Your task to perform on an android device: Is it going to rain tomorrow? Image 0: 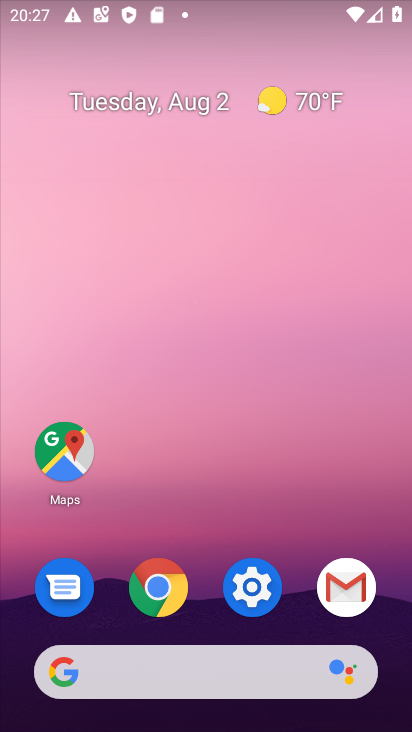
Step 0: click (213, 663)
Your task to perform on an android device: Is it going to rain tomorrow? Image 1: 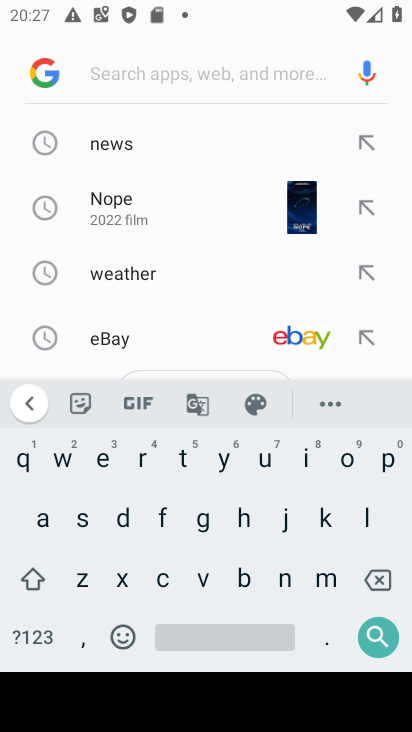
Step 1: click (305, 463)
Your task to perform on an android device: Is it going to rain tomorrow? Image 2: 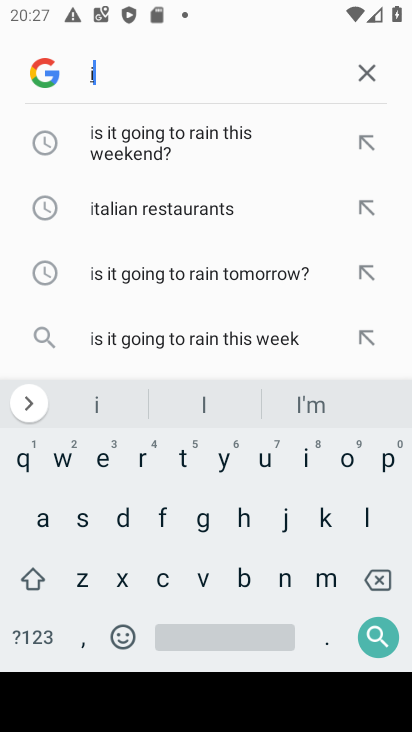
Step 2: click (129, 126)
Your task to perform on an android device: Is it going to rain tomorrow? Image 3: 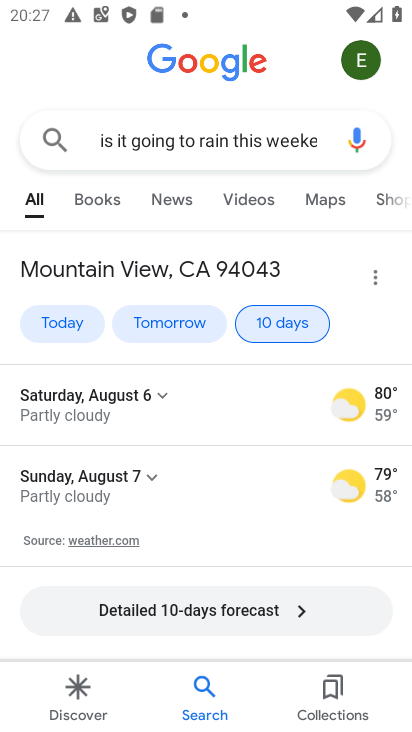
Step 3: click (146, 327)
Your task to perform on an android device: Is it going to rain tomorrow? Image 4: 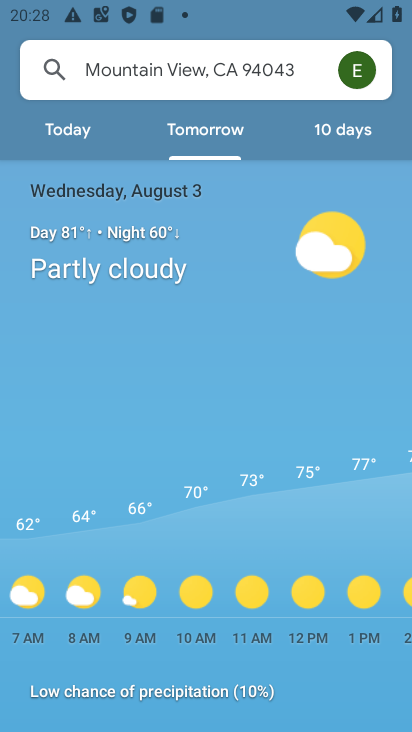
Step 4: task complete